Your task to perform on an android device: toggle sleep mode Image 0: 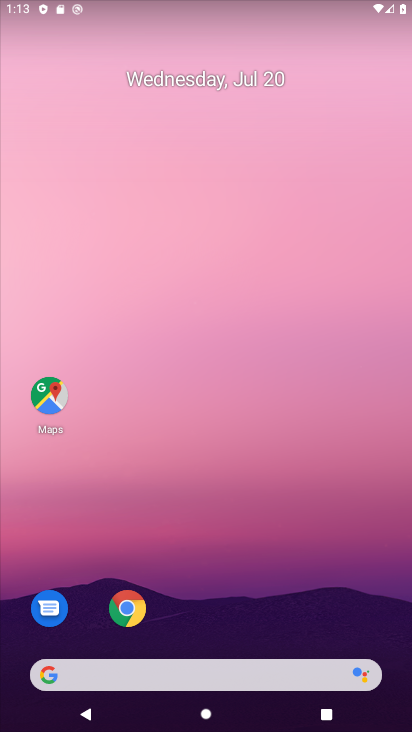
Step 0: drag from (284, 630) to (316, 177)
Your task to perform on an android device: toggle sleep mode Image 1: 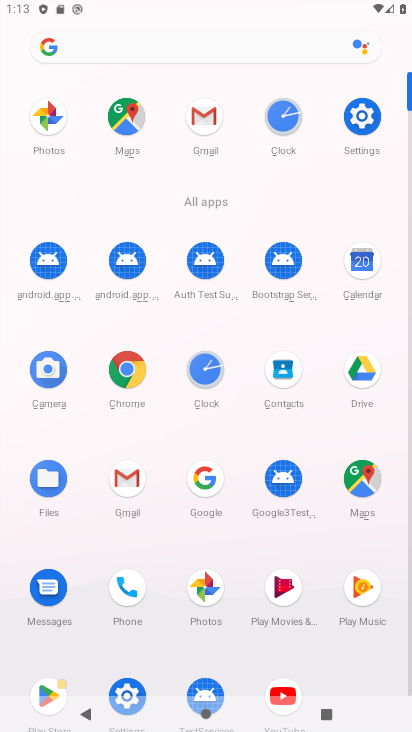
Step 1: click (342, 114)
Your task to perform on an android device: toggle sleep mode Image 2: 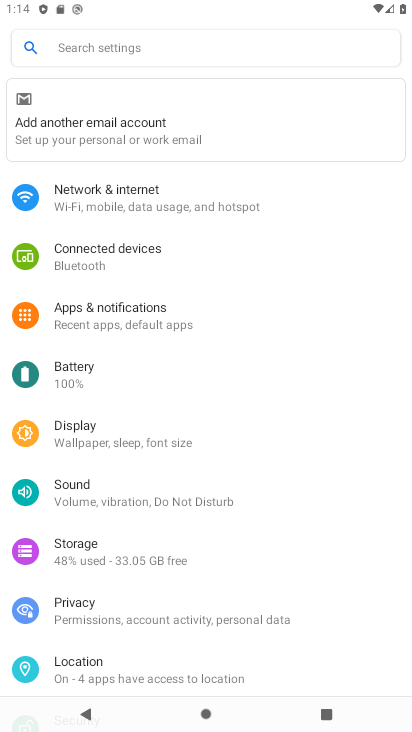
Step 2: task complete